Your task to perform on an android device: open app "Speedtest by Ookla" Image 0: 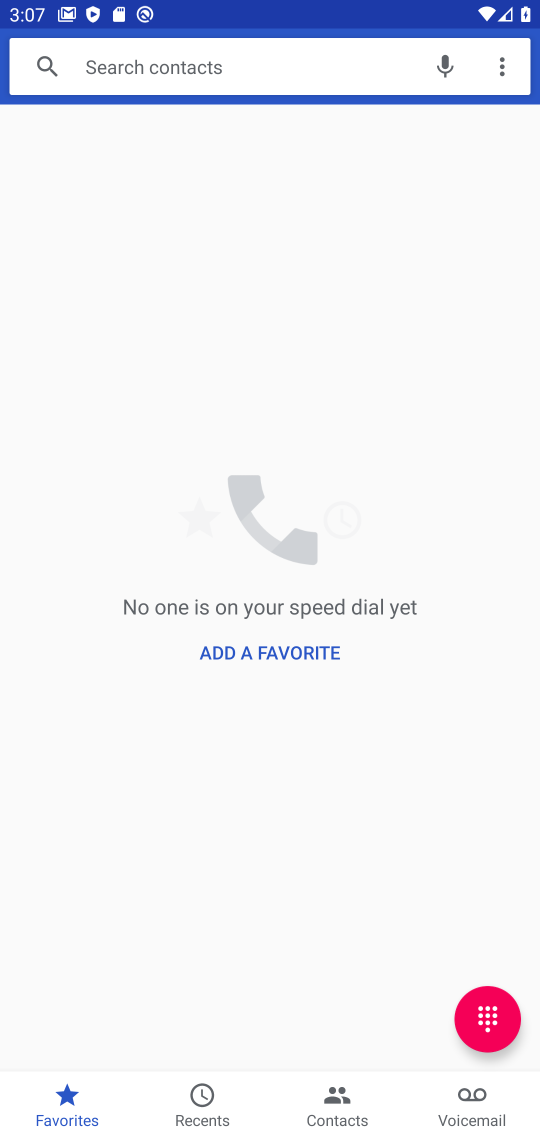
Step 0: press home button
Your task to perform on an android device: open app "Speedtest by Ookla" Image 1: 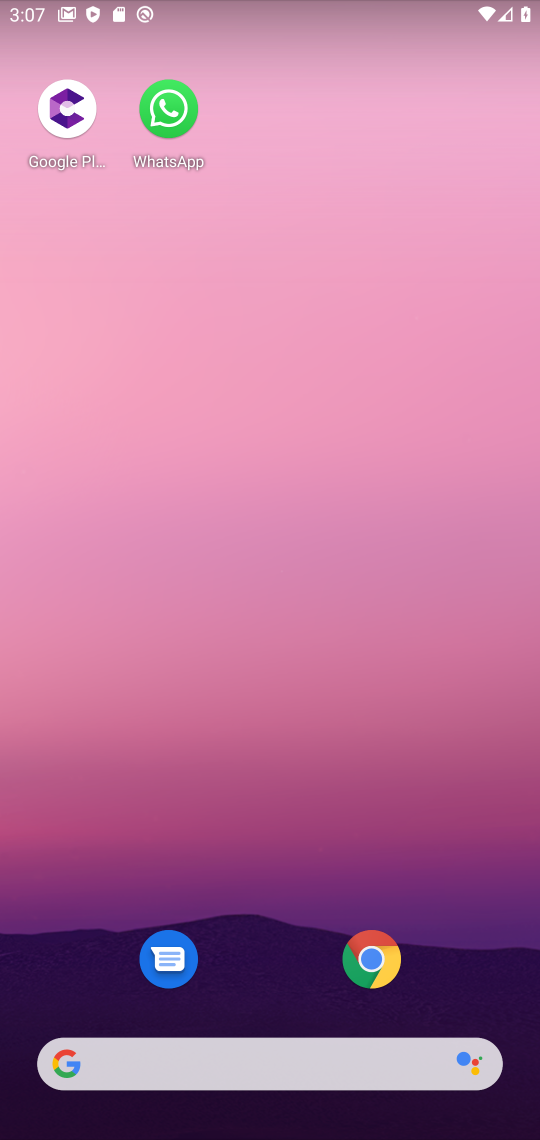
Step 1: task complete